Your task to perform on an android device: What's the weather today? Image 0: 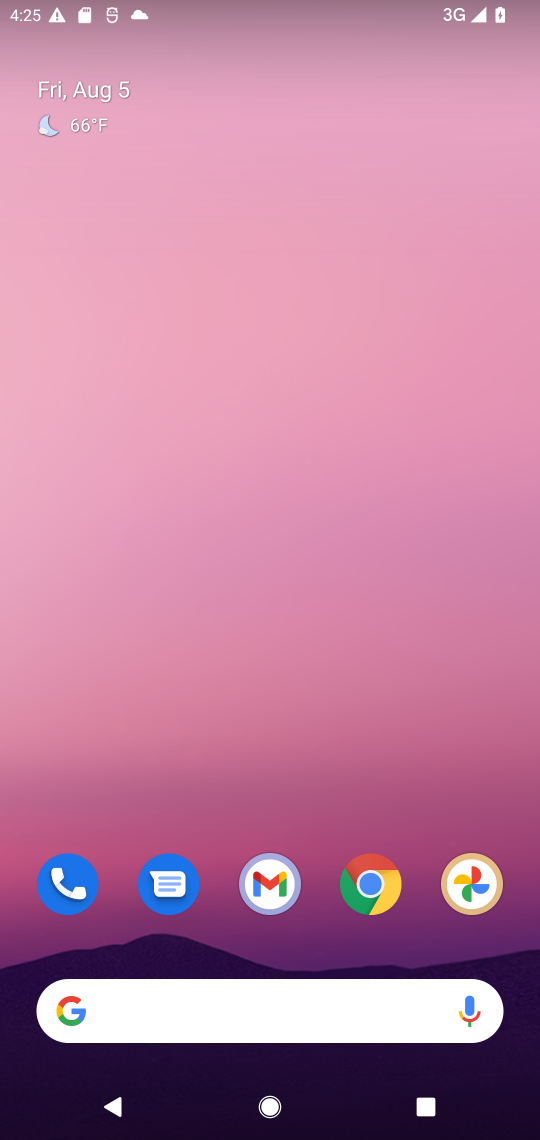
Step 0: drag from (465, 973) to (296, 21)
Your task to perform on an android device: What's the weather today? Image 1: 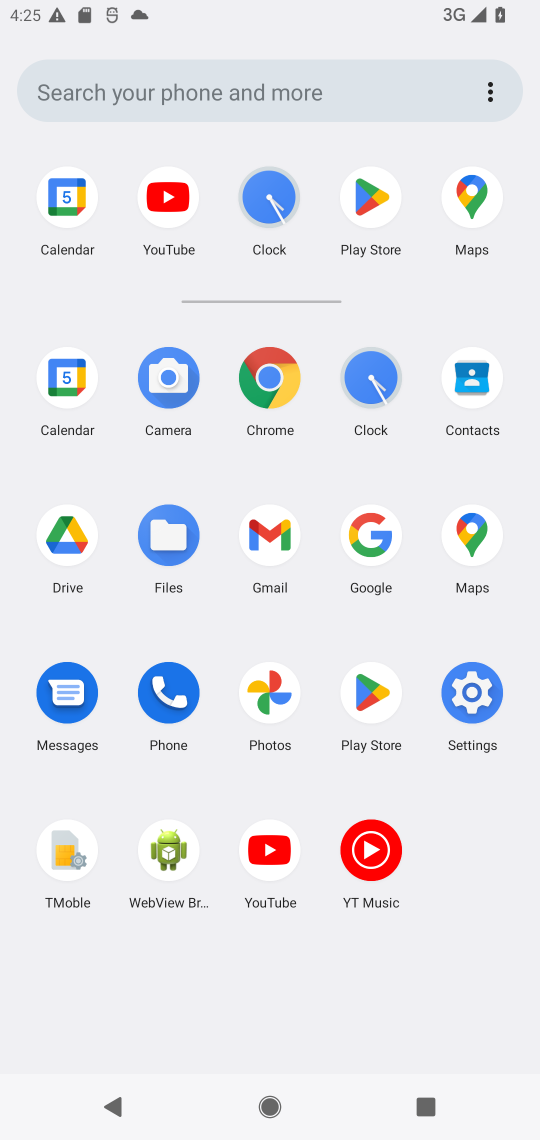
Step 1: click (364, 556)
Your task to perform on an android device: What's the weather today? Image 2: 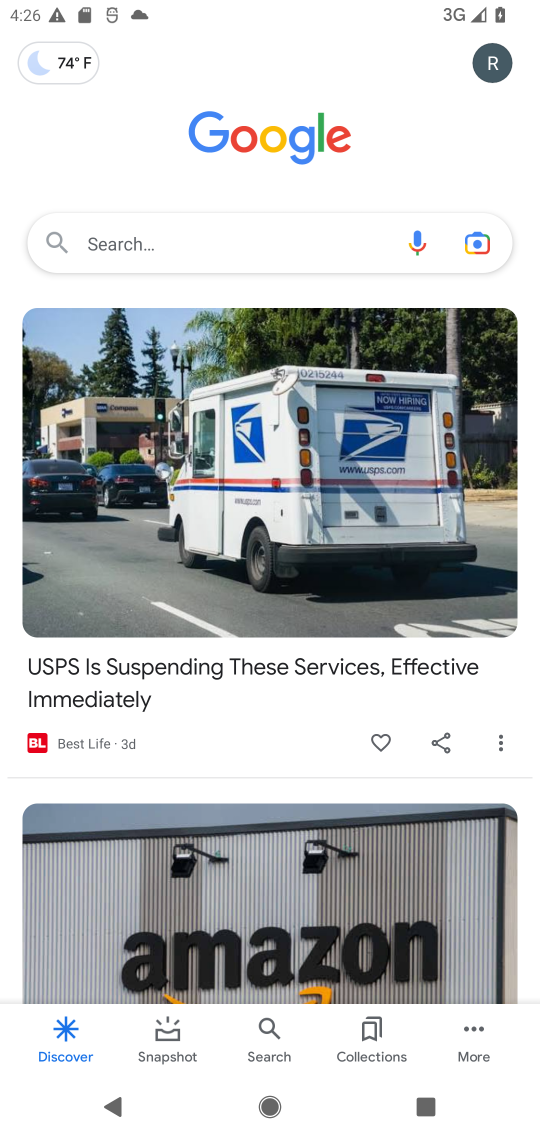
Step 2: click (195, 246)
Your task to perform on an android device: What's the weather today? Image 3: 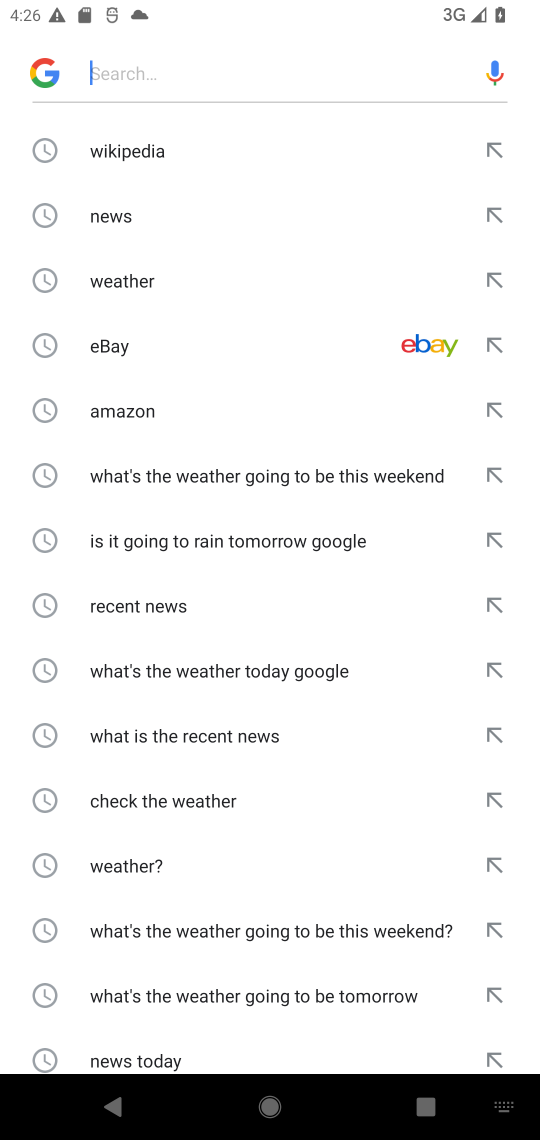
Step 3: type "What's the weather today?"
Your task to perform on an android device: What's the weather today? Image 4: 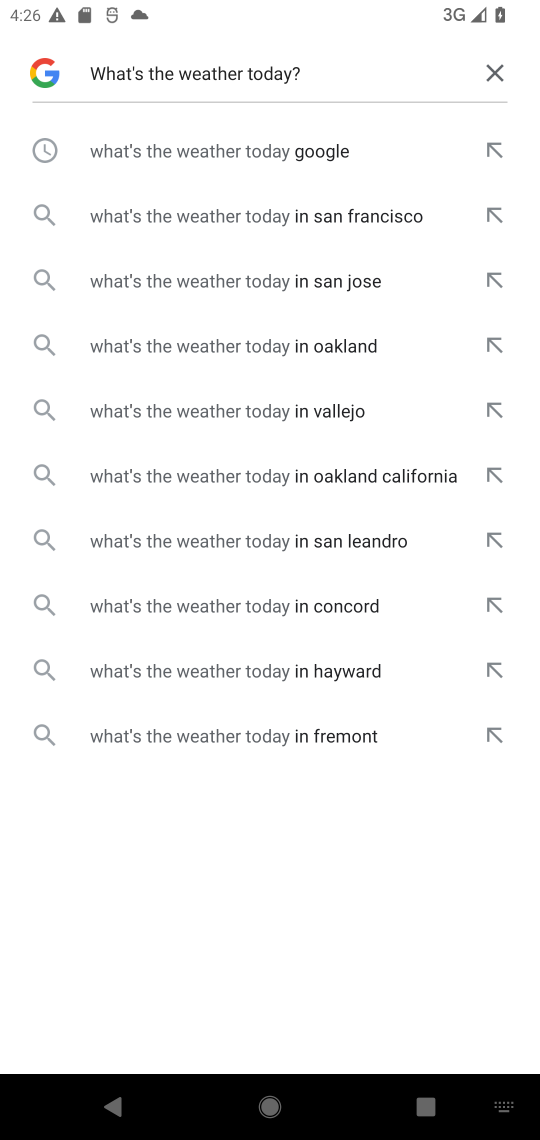
Step 4: click (186, 140)
Your task to perform on an android device: What's the weather today? Image 5: 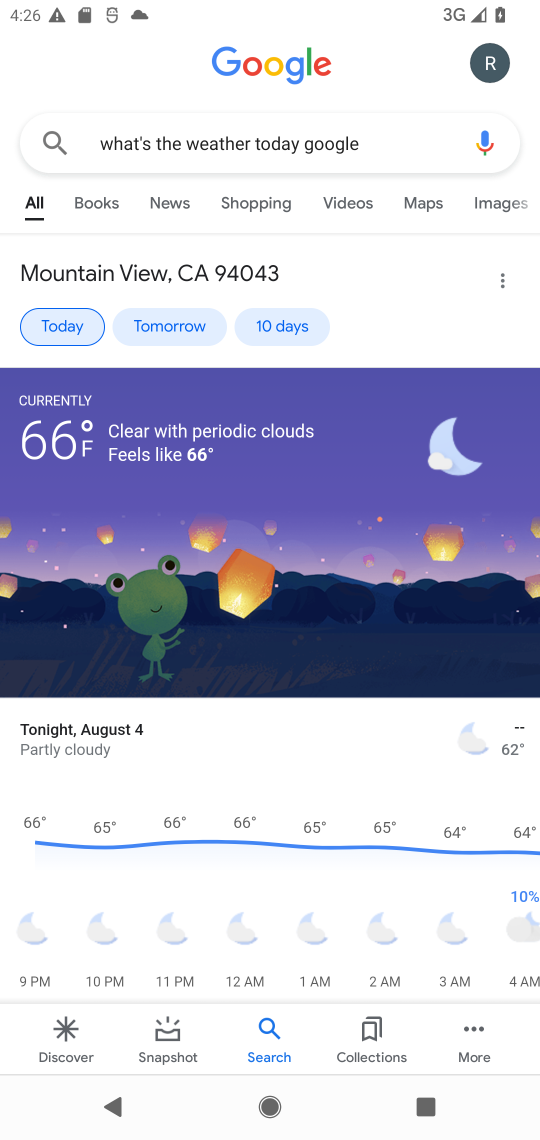
Step 5: task complete